Your task to perform on an android device: find photos in the google photos app Image 0: 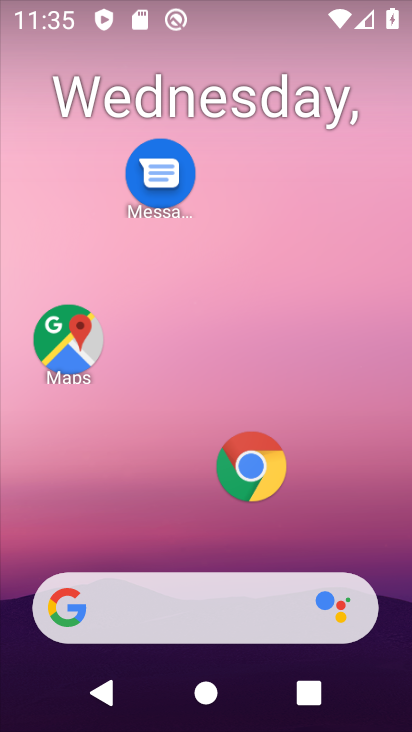
Step 0: drag from (188, 509) to (257, 150)
Your task to perform on an android device: find photos in the google photos app Image 1: 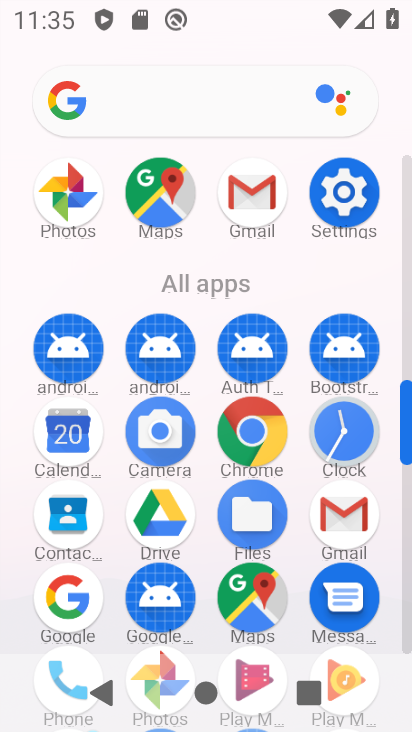
Step 1: click (65, 198)
Your task to perform on an android device: find photos in the google photos app Image 2: 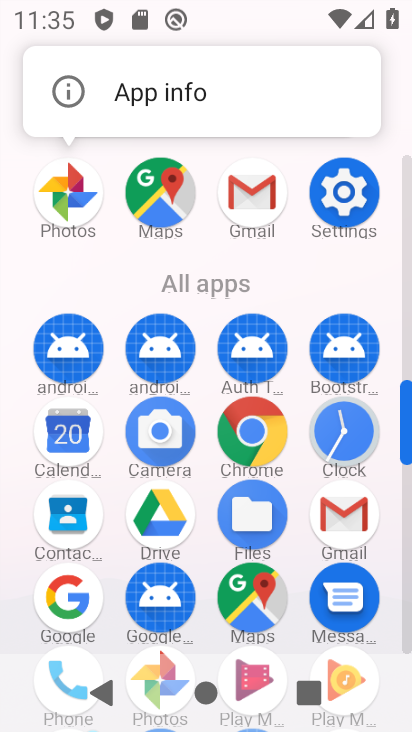
Step 2: click (65, 198)
Your task to perform on an android device: find photos in the google photos app Image 3: 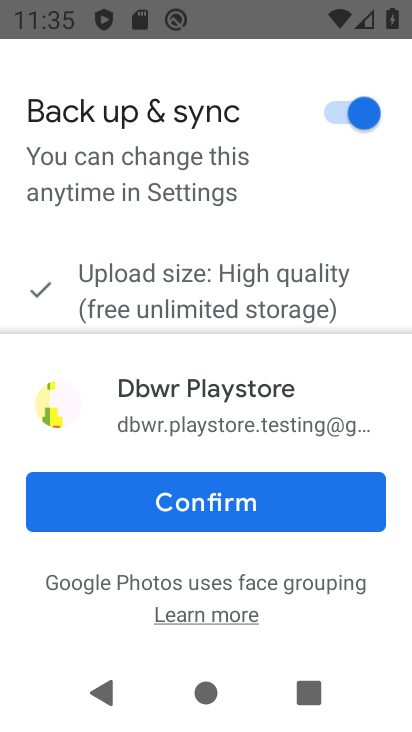
Step 3: click (202, 516)
Your task to perform on an android device: find photos in the google photos app Image 4: 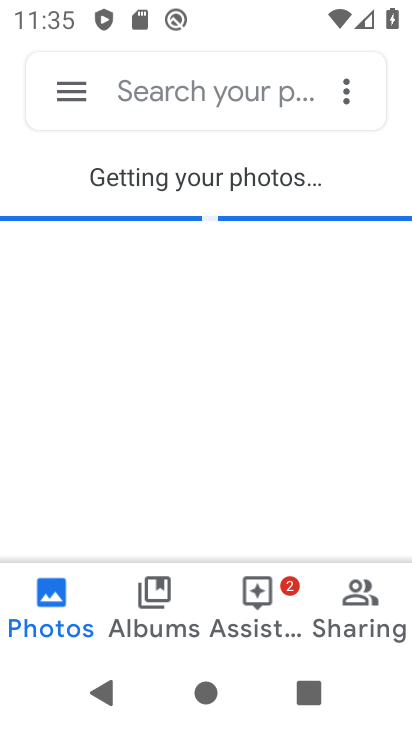
Step 4: click (171, 86)
Your task to perform on an android device: find photos in the google photos app Image 5: 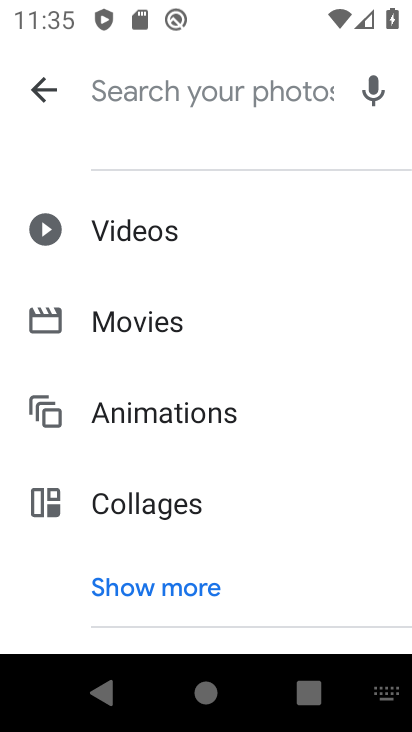
Step 5: type "aa"
Your task to perform on an android device: find photos in the google photos app Image 6: 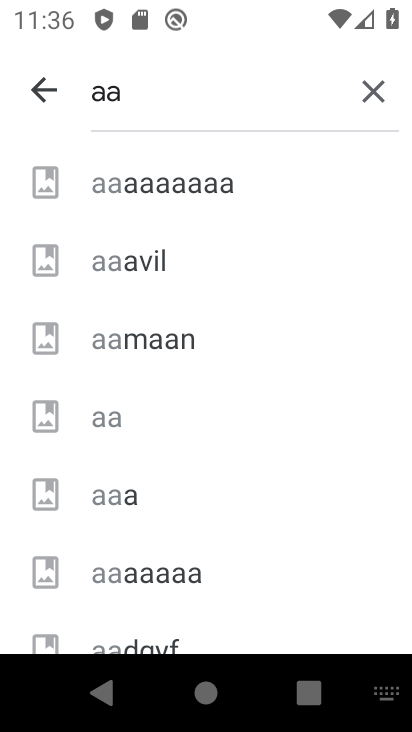
Step 6: click (177, 241)
Your task to perform on an android device: find photos in the google photos app Image 7: 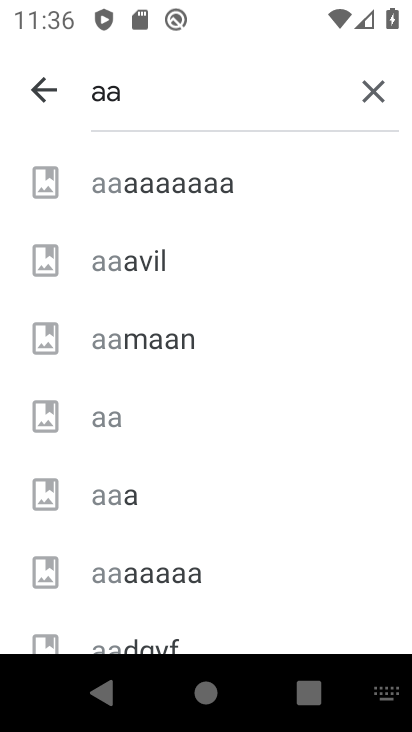
Step 7: press home button
Your task to perform on an android device: find photos in the google photos app Image 8: 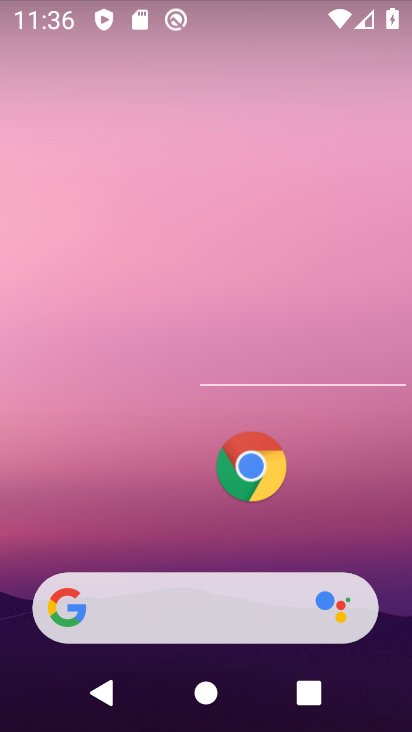
Step 8: drag from (204, 216) to (204, 124)
Your task to perform on an android device: find photos in the google photos app Image 9: 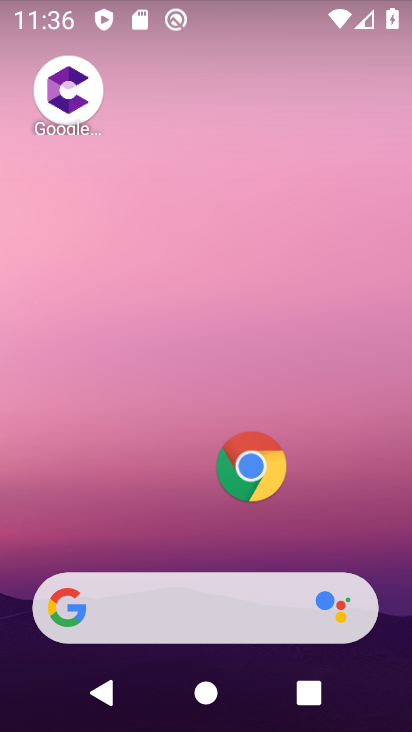
Step 9: drag from (209, 348) to (218, 160)
Your task to perform on an android device: find photos in the google photos app Image 10: 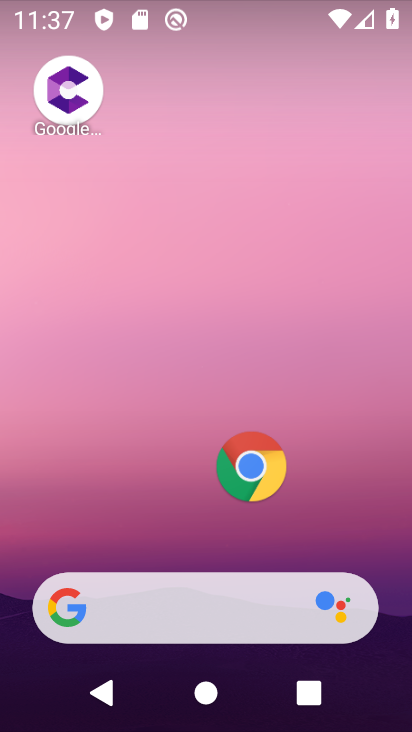
Step 10: drag from (188, 538) to (218, 161)
Your task to perform on an android device: find photos in the google photos app Image 11: 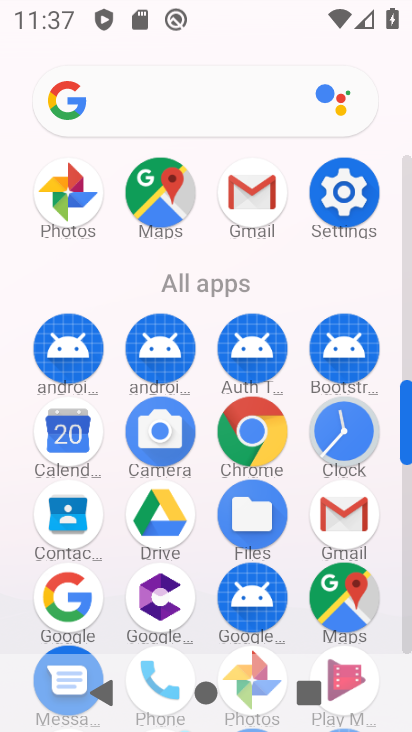
Step 11: click (78, 195)
Your task to perform on an android device: find photos in the google photos app Image 12: 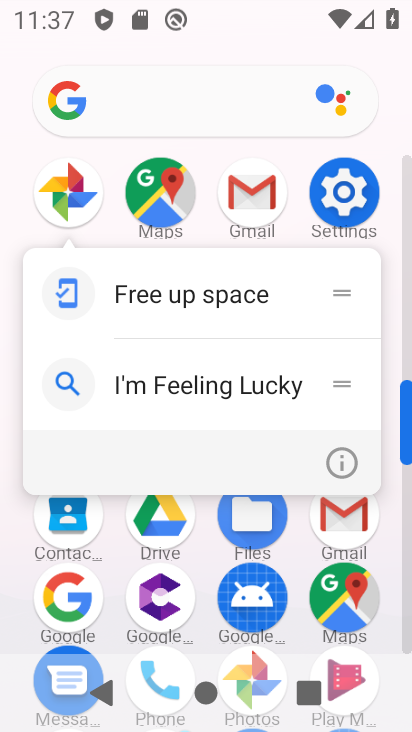
Step 12: click (74, 201)
Your task to perform on an android device: find photos in the google photos app Image 13: 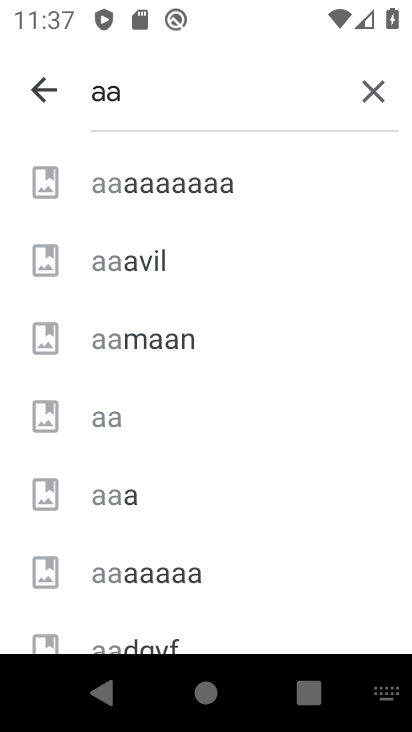
Step 13: click (201, 250)
Your task to perform on an android device: find photos in the google photos app Image 14: 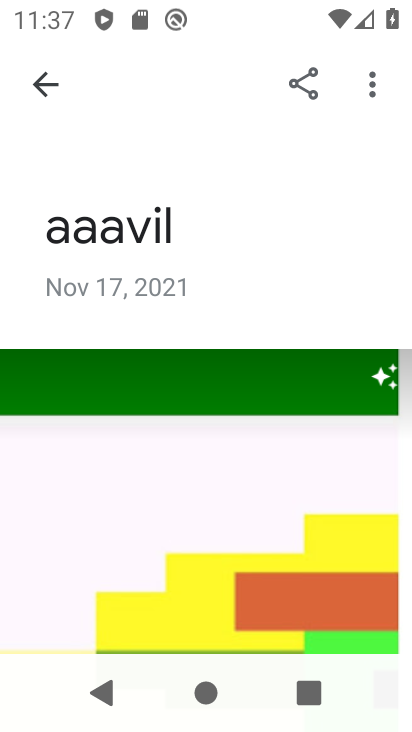
Step 14: task complete